Your task to perform on an android device: allow notifications from all sites in the chrome app Image 0: 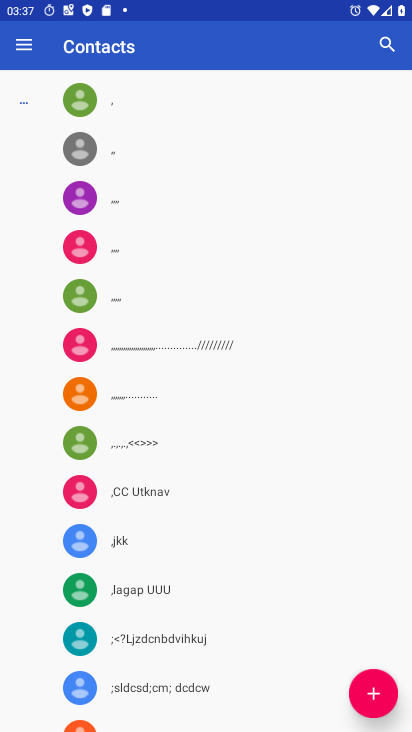
Step 0: press home button
Your task to perform on an android device: allow notifications from all sites in the chrome app Image 1: 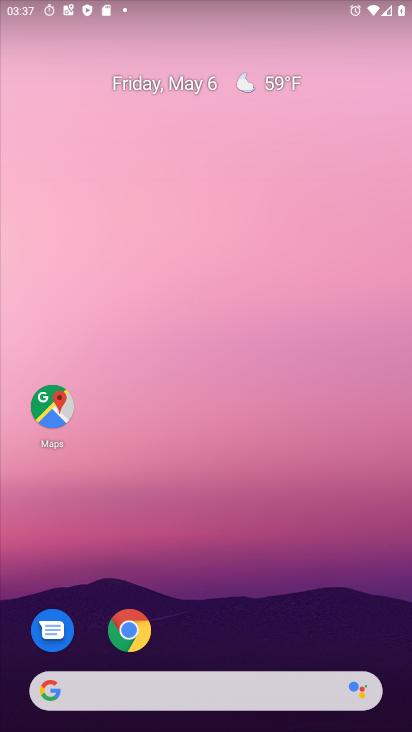
Step 1: click (139, 630)
Your task to perform on an android device: allow notifications from all sites in the chrome app Image 2: 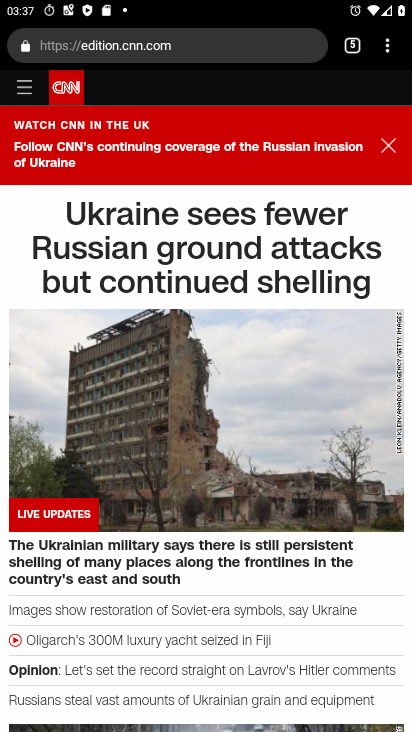
Step 2: click (395, 45)
Your task to perform on an android device: allow notifications from all sites in the chrome app Image 3: 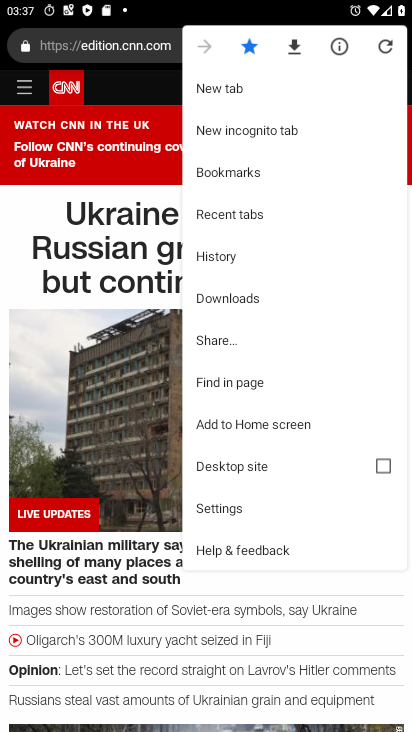
Step 3: click (232, 512)
Your task to perform on an android device: allow notifications from all sites in the chrome app Image 4: 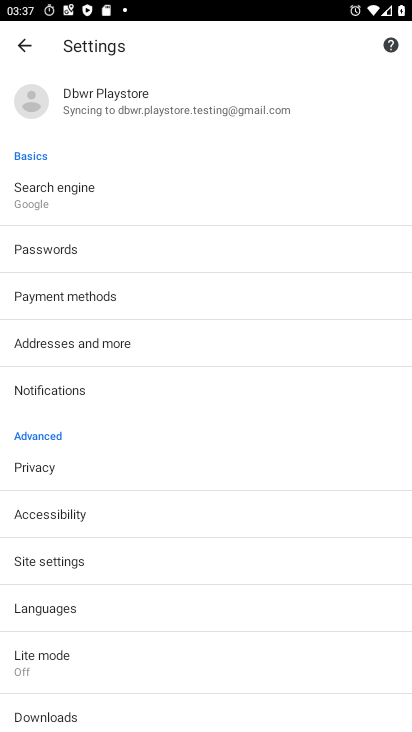
Step 4: click (80, 556)
Your task to perform on an android device: allow notifications from all sites in the chrome app Image 5: 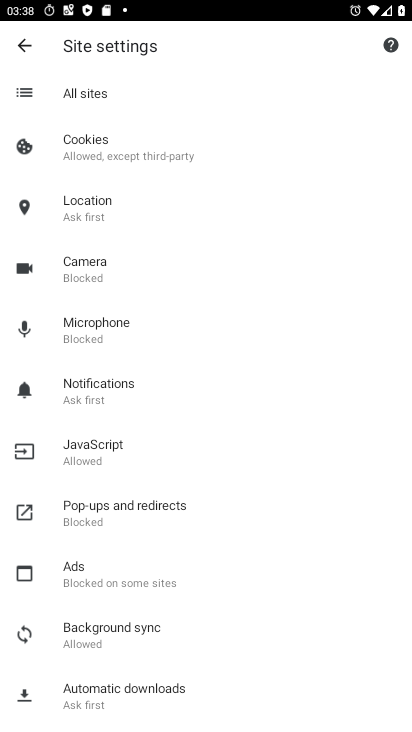
Step 5: click (94, 100)
Your task to perform on an android device: allow notifications from all sites in the chrome app Image 6: 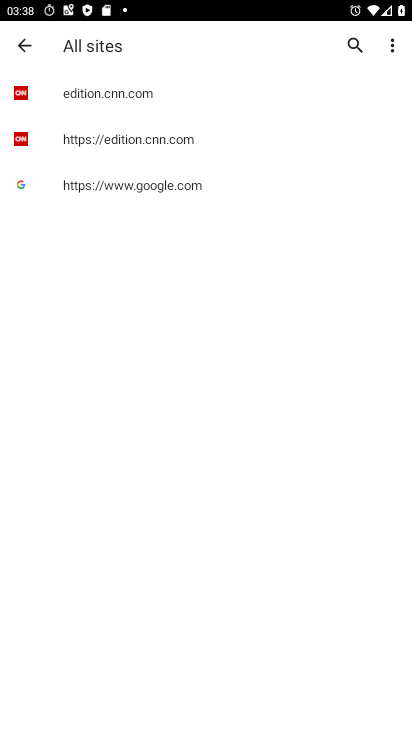
Step 6: click (147, 192)
Your task to perform on an android device: allow notifications from all sites in the chrome app Image 7: 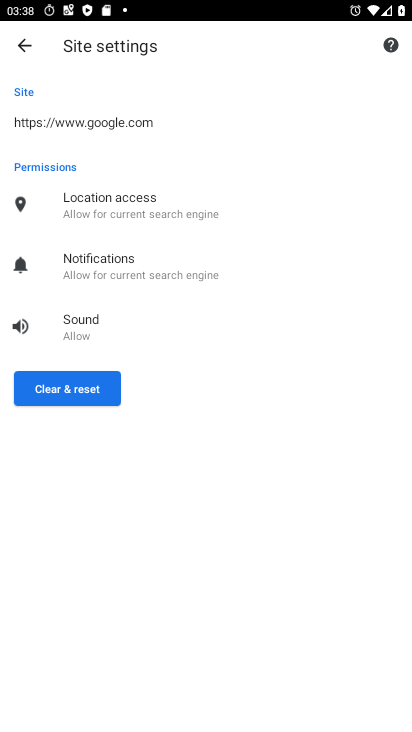
Step 7: click (152, 275)
Your task to perform on an android device: allow notifications from all sites in the chrome app Image 8: 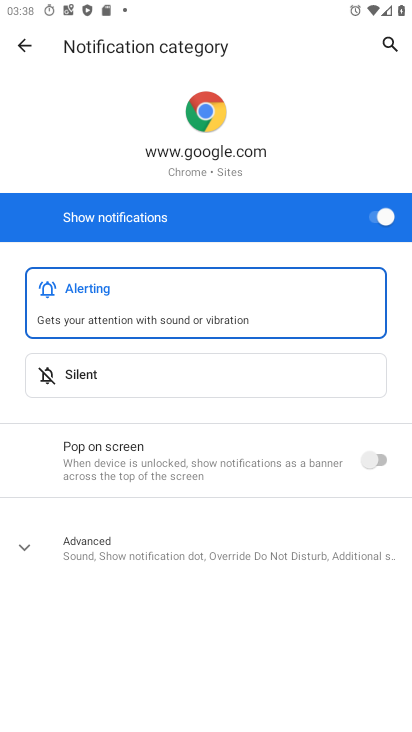
Step 8: task complete